Your task to perform on an android device: show emergency info Image 0: 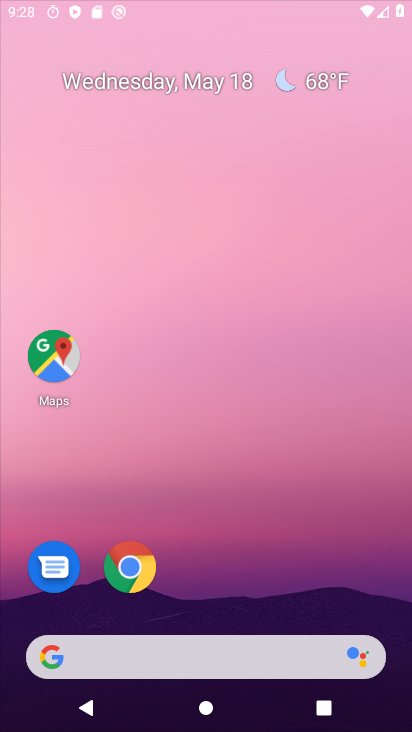
Step 0: click (252, 154)
Your task to perform on an android device: show emergency info Image 1: 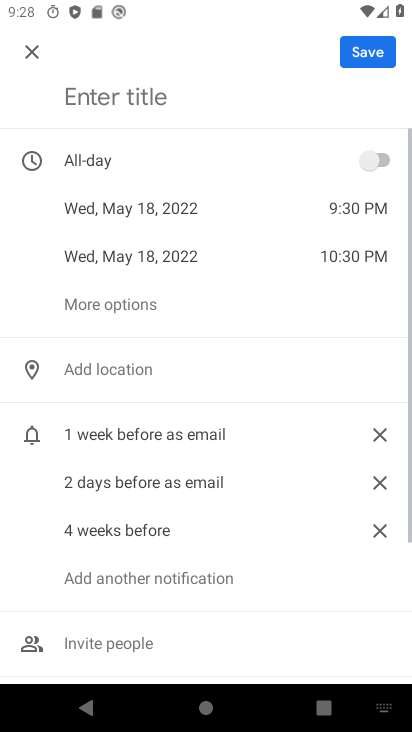
Step 1: press home button
Your task to perform on an android device: show emergency info Image 2: 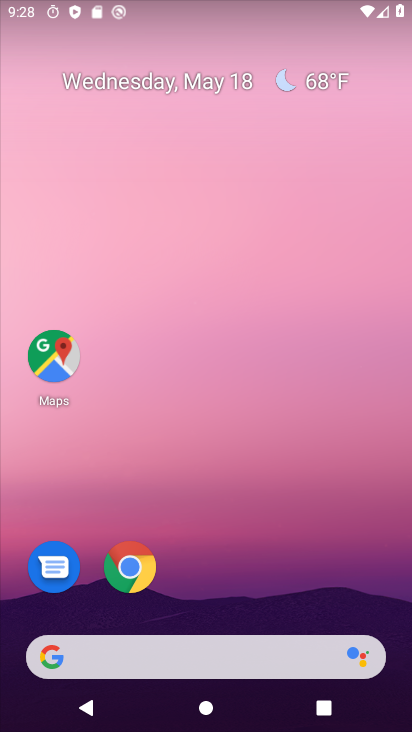
Step 2: drag from (240, 532) to (233, 163)
Your task to perform on an android device: show emergency info Image 3: 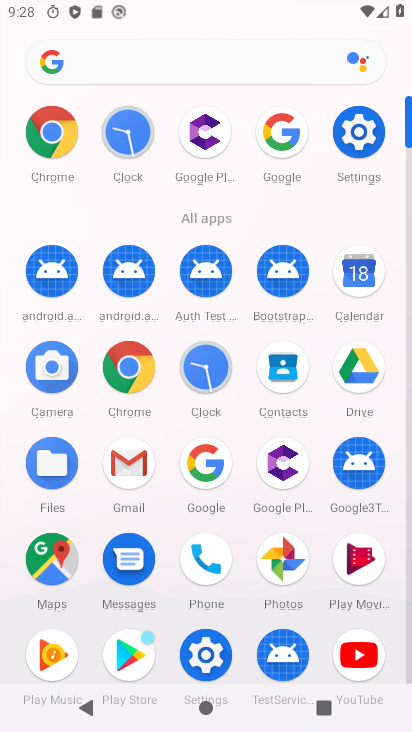
Step 3: click (348, 139)
Your task to perform on an android device: show emergency info Image 4: 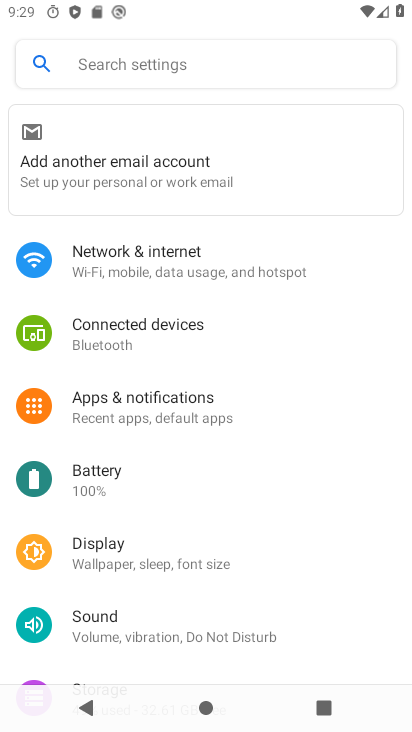
Step 4: drag from (295, 614) to (262, 104)
Your task to perform on an android device: show emergency info Image 5: 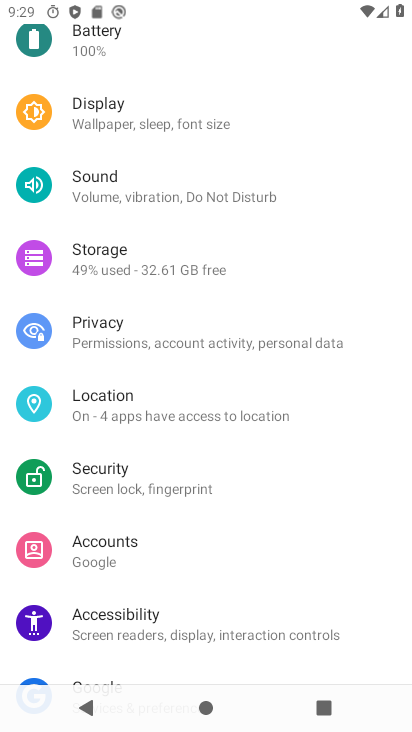
Step 5: drag from (330, 650) to (268, 141)
Your task to perform on an android device: show emergency info Image 6: 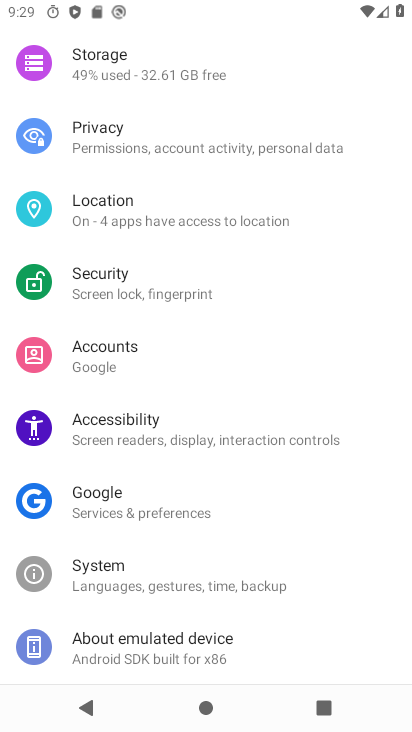
Step 6: click (241, 627)
Your task to perform on an android device: show emergency info Image 7: 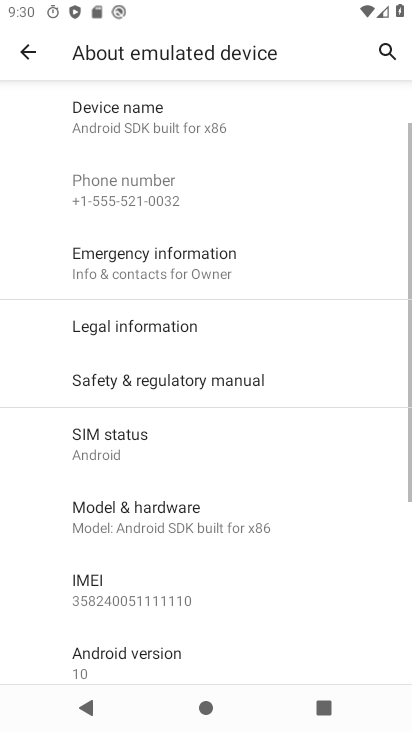
Step 7: click (169, 260)
Your task to perform on an android device: show emergency info Image 8: 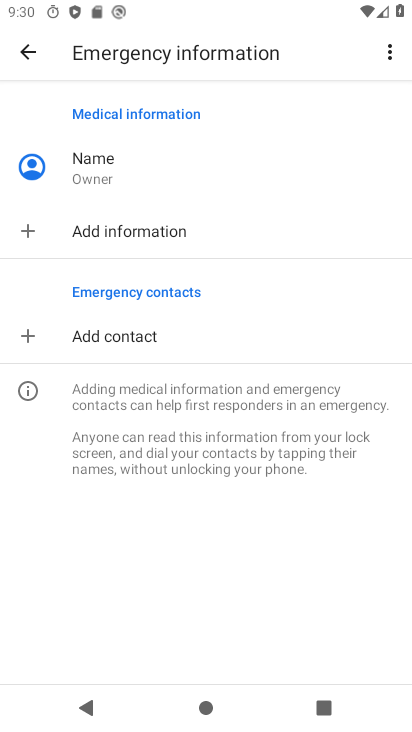
Step 8: task complete